Your task to perform on an android device: star an email in the gmail app Image 0: 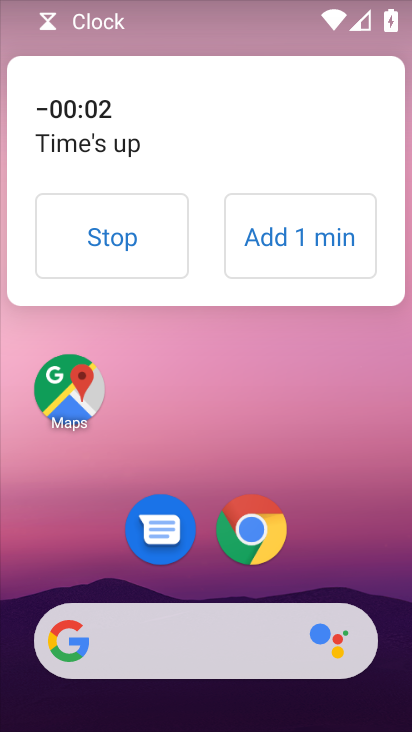
Step 0: click (158, 224)
Your task to perform on an android device: star an email in the gmail app Image 1: 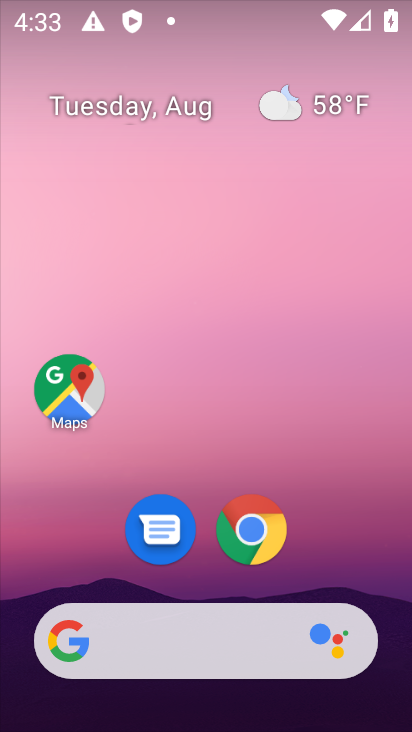
Step 1: drag from (218, 464) to (276, 25)
Your task to perform on an android device: star an email in the gmail app Image 2: 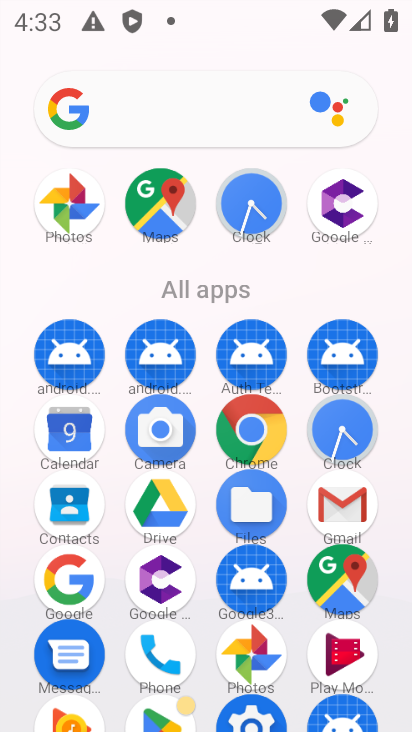
Step 2: click (330, 502)
Your task to perform on an android device: star an email in the gmail app Image 3: 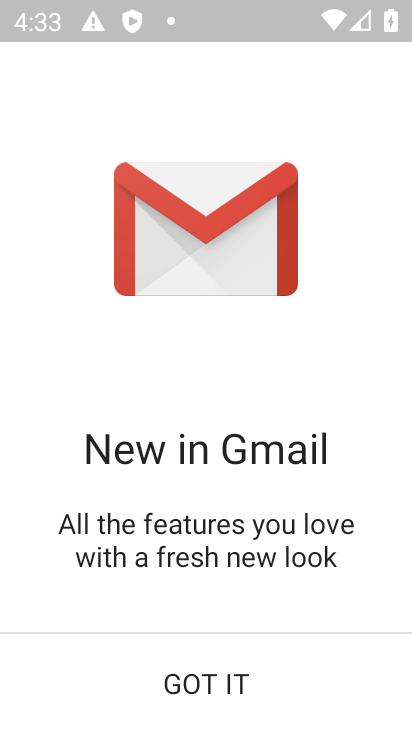
Step 3: click (231, 654)
Your task to perform on an android device: star an email in the gmail app Image 4: 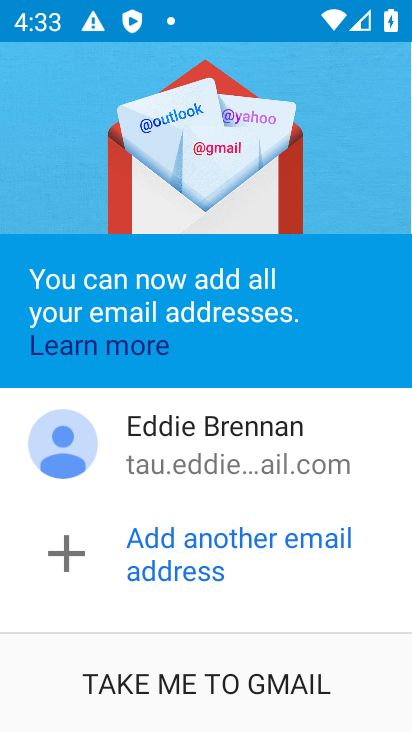
Step 4: click (215, 668)
Your task to perform on an android device: star an email in the gmail app Image 5: 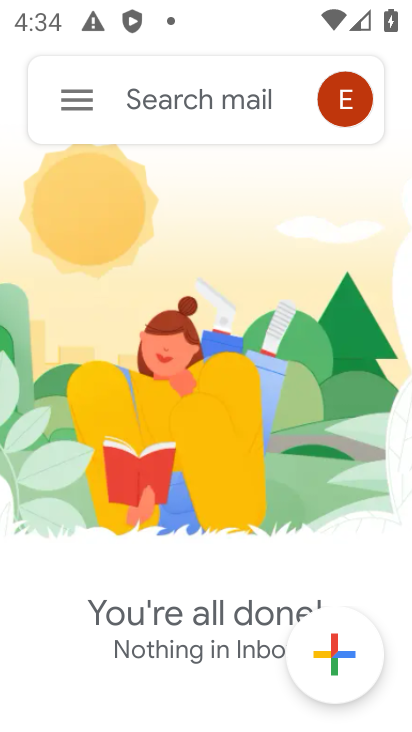
Step 5: task complete